Your task to perform on an android device: turn off javascript in the chrome app Image 0: 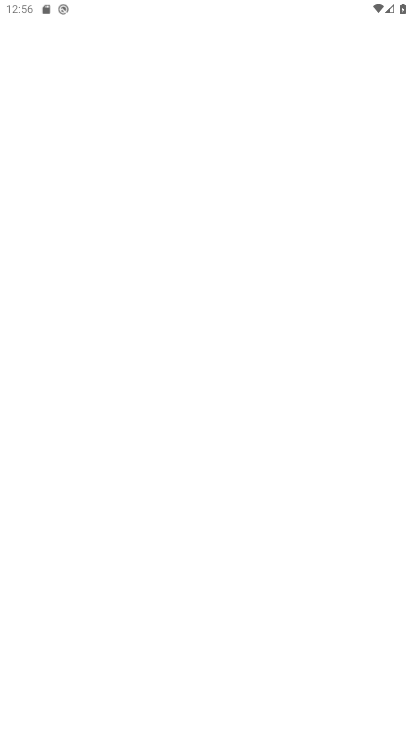
Step 0: press home button
Your task to perform on an android device: turn off javascript in the chrome app Image 1: 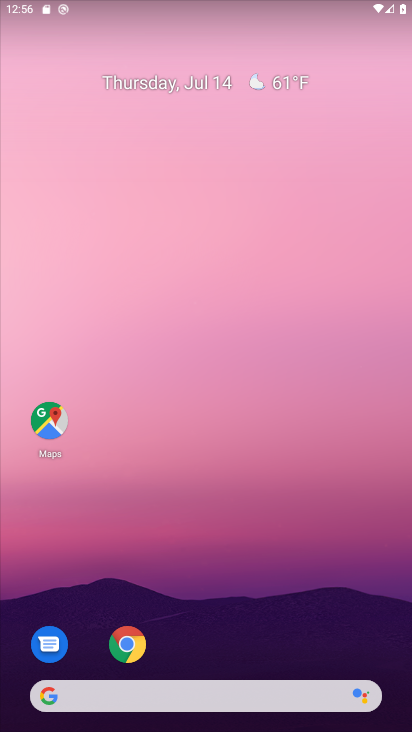
Step 1: click (137, 644)
Your task to perform on an android device: turn off javascript in the chrome app Image 2: 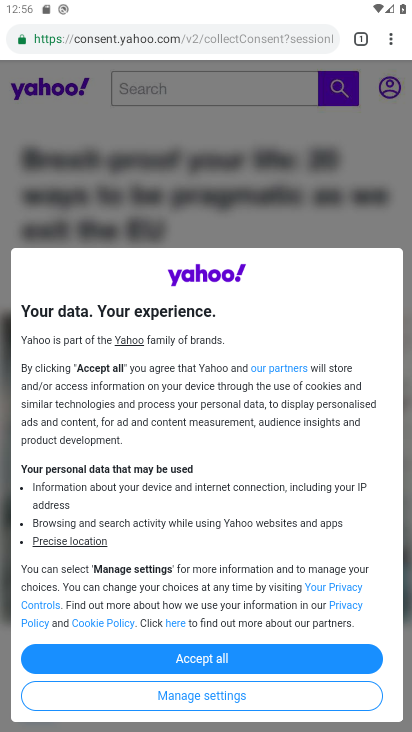
Step 2: click (396, 49)
Your task to perform on an android device: turn off javascript in the chrome app Image 3: 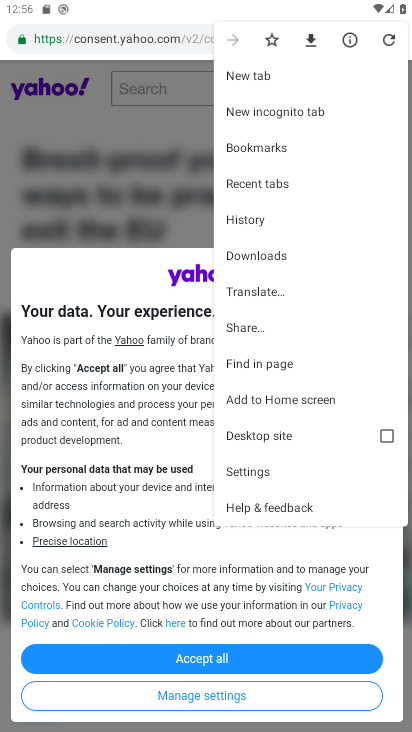
Step 3: click (268, 466)
Your task to perform on an android device: turn off javascript in the chrome app Image 4: 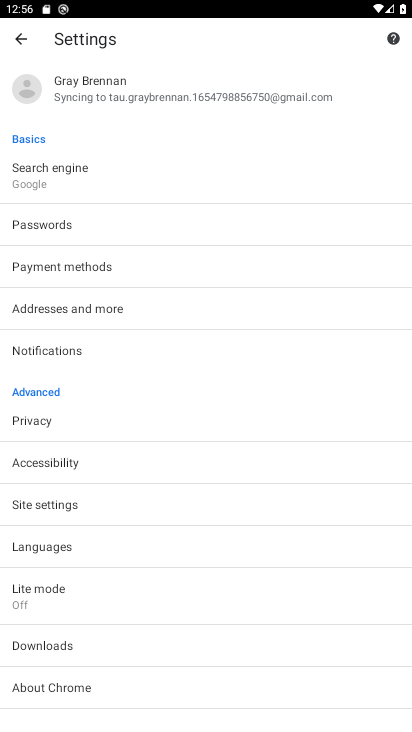
Step 4: click (79, 493)
Your task to perform on an android device: turn off javascript in the chrome app Image 5: 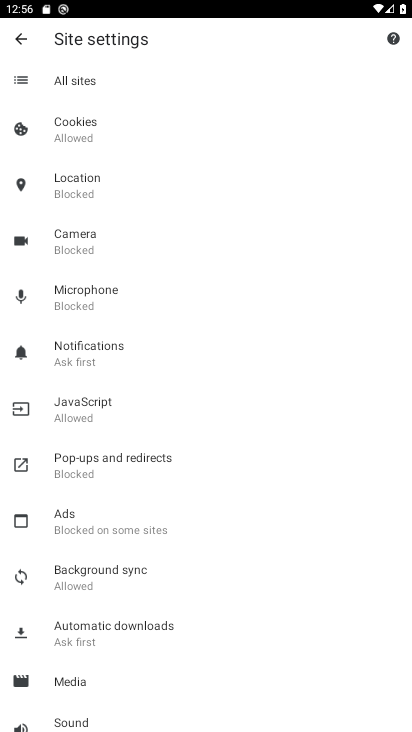
Step 5: click (99, 411)
Your task to perform on an android device: turn off javascript in the chrome app Image 6: 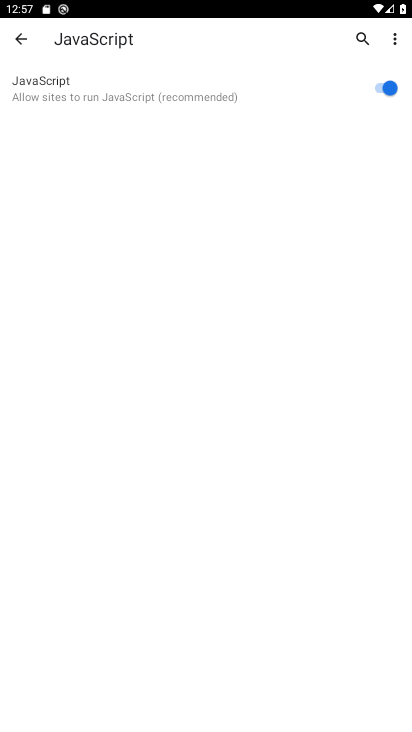
Step 6: click (359, 88)
Your task to perform on an android device: turn off javascript in the chrome app Image 7: 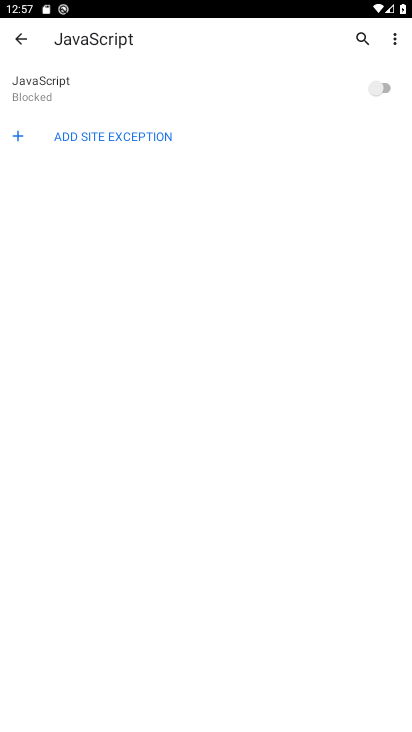
Step 7: task complete